Your task to perform on an android device: toggle location history Image 0: 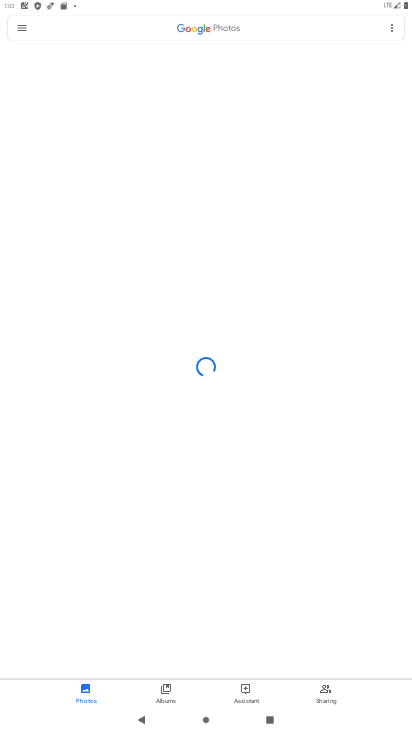
Step 0: press home button
Your task to perform on an android device: toggle location history Image 1: 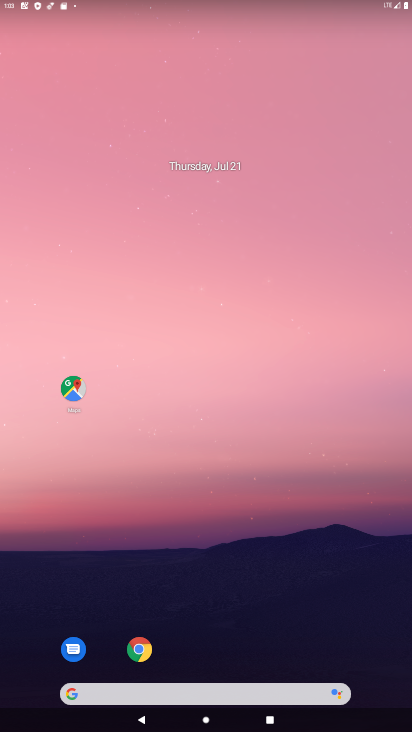
Step 1: drag from (193, 684) to (220, 368)
Your task to perform on an android device: toggle location history Image 2: 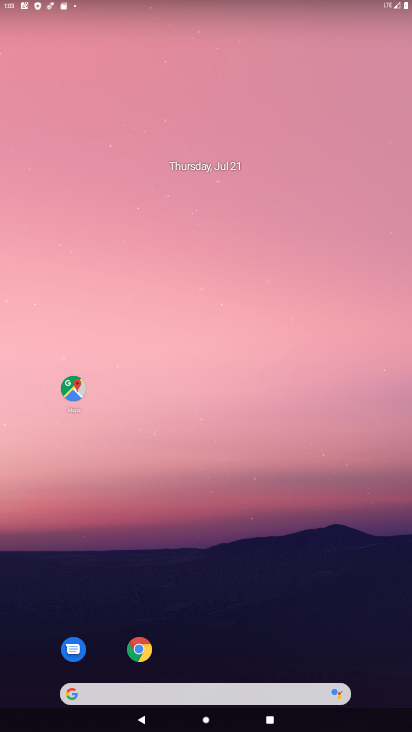
Step 2: drag from (265, 682) to (253, 257)
Your task to perform on an android device: toggle location history Image 3: 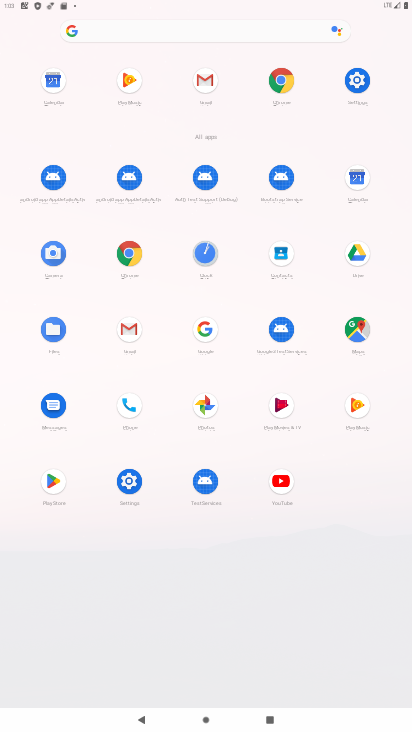
Step 3: click (354, 87)
Your task to perform on an android device: toggle location history Image 4: 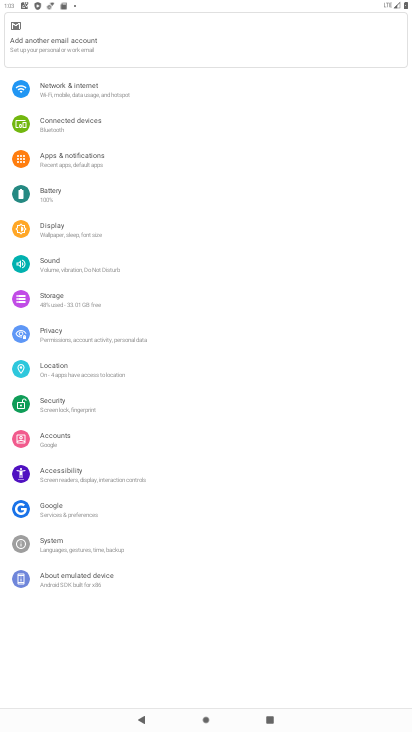
Step 4: click (63, 367)
Your task to perform on an android device: toggle location history Image 5: 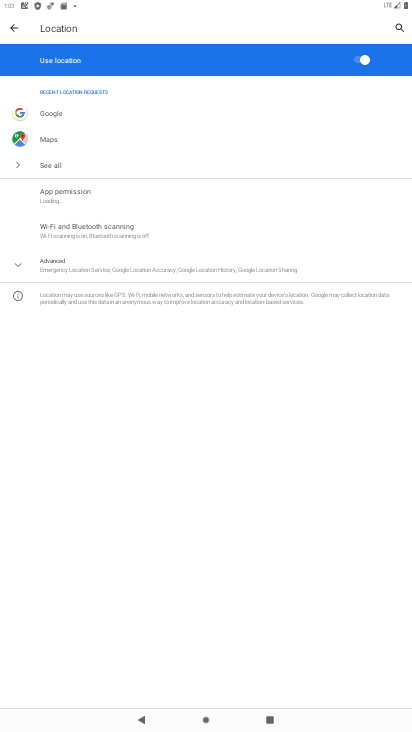
Step 5: click (65, 260)
Your task to perform on an android device: toggle location history Image 6: 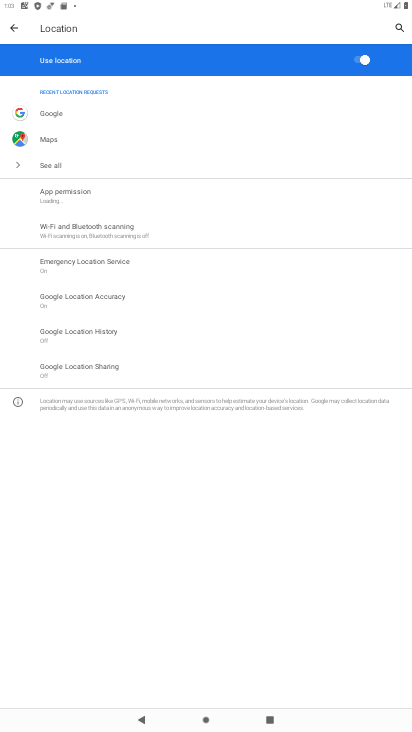
Step 6: click (102, 327)
Your task to perform on an android device: toggle location history Image 7: 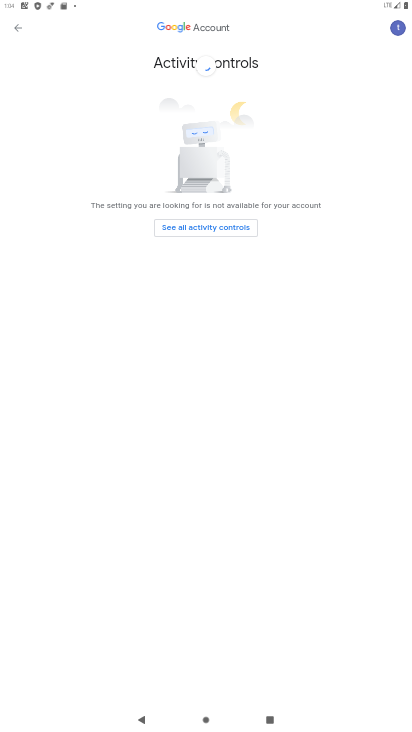
Step 7: click (228, 218)
Your task to perform on an android device: toggle location history Image 8: 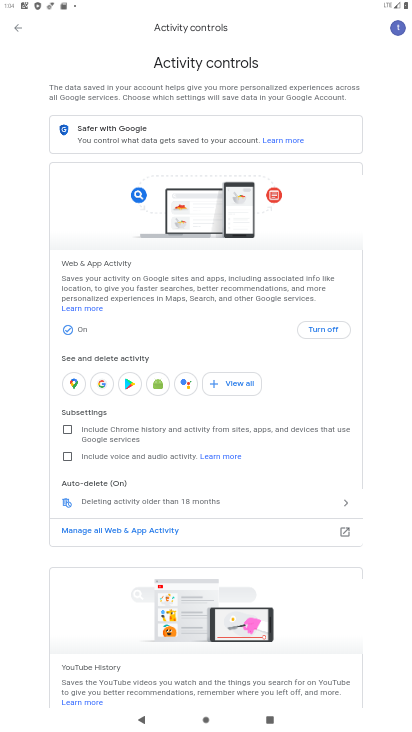
Step 8: click (329, 320)
Your task to perform on an android device: toggle location history Image 9: 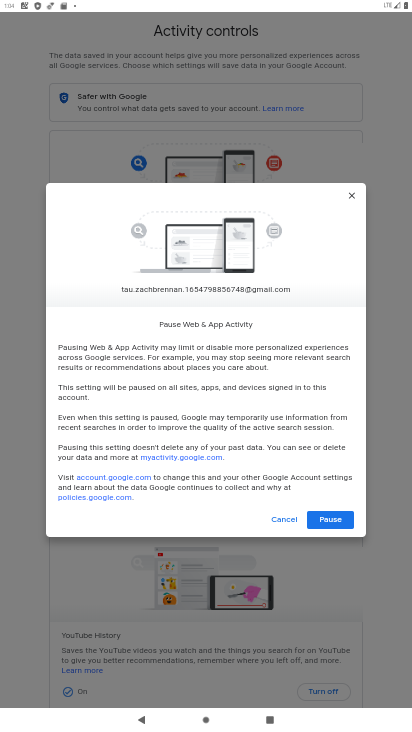
Step 9: click (323, 522)
Your task to perform on an android device: toggle location history Image 10: 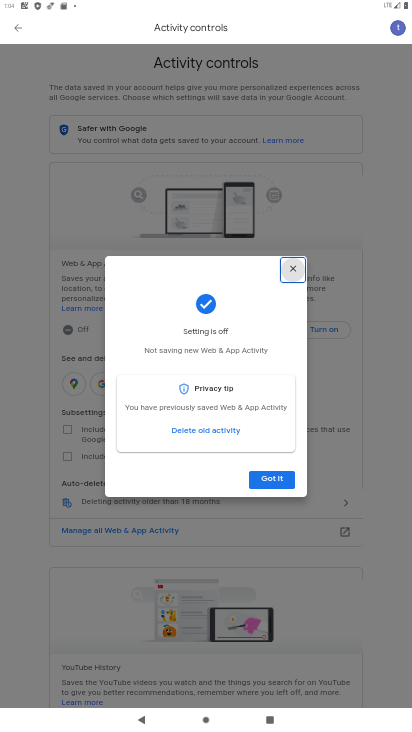
Step 10: click (287, 480)
Your task to perform on an android device: toggle location history Image 11: 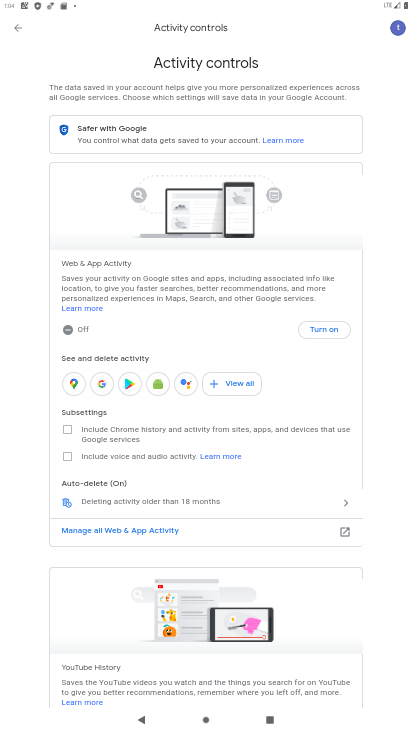
Step 11: task complete